Your task to perform on an android device: Search for "jbl flip 4" on ebay, select the first entry, and add it to the cart. Image 0: 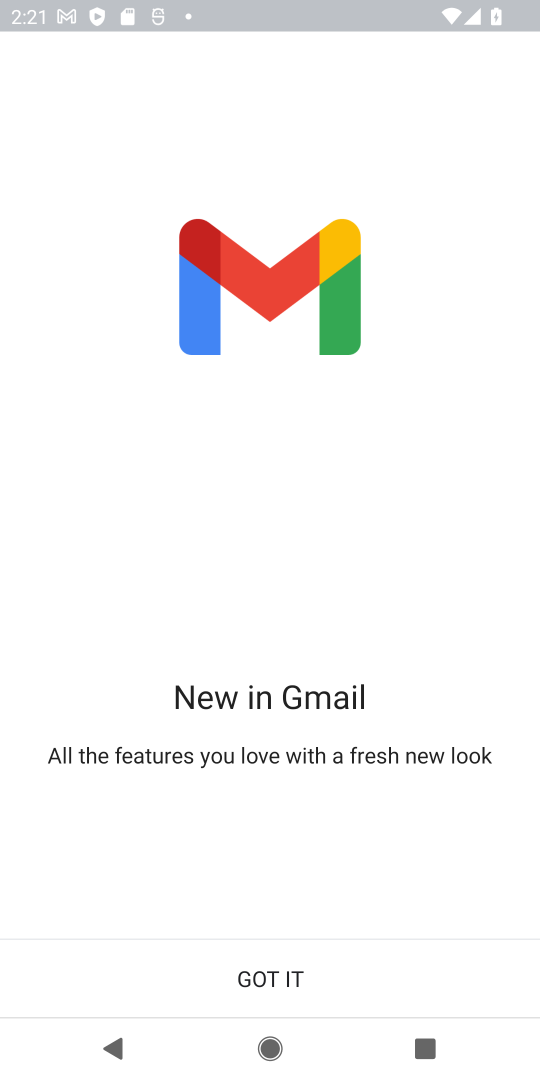
Step 0: press home button
Your task to perform on an android device: Search for "jbl flip 4" on ebay, select the first entry, and add it to the cart. Image 1: 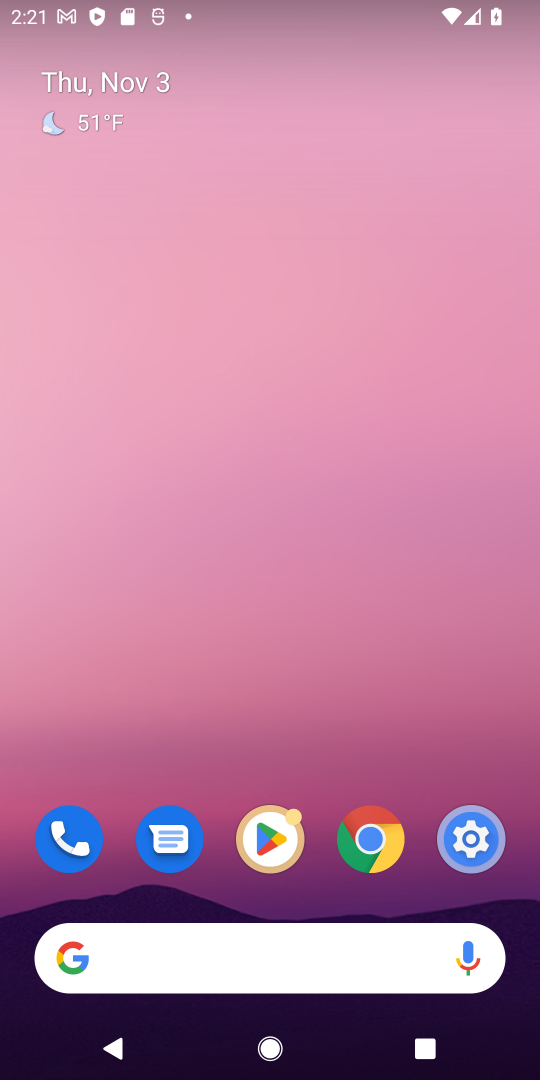
Step 1: click (242, 987)
Your task to perform on an android device: Search for "jbl flip 4" on ebay, select the first entry, and add it to the cart. Image 2: 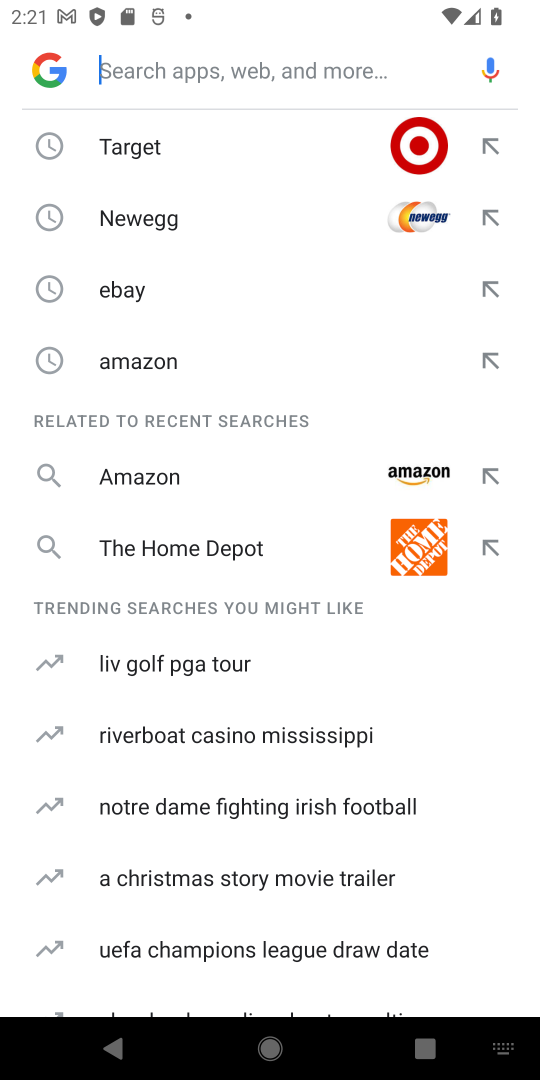
Step 2: click (158, 297)
Your task to perform on an android device: Search for "jbl flip 4" on ebay, select the first entry, and add it to the cart. Image 3: 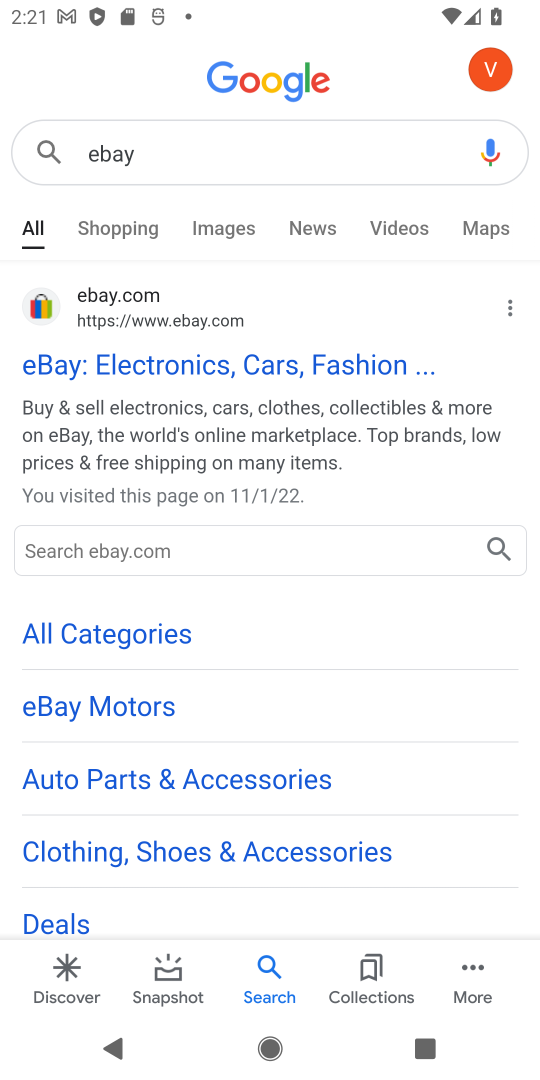
Step 3: click (288, 386)
Your task to perform on an android device: Search for "jbl flip 4" on ebay, select the first entry, and add it to the cart. Image 4: 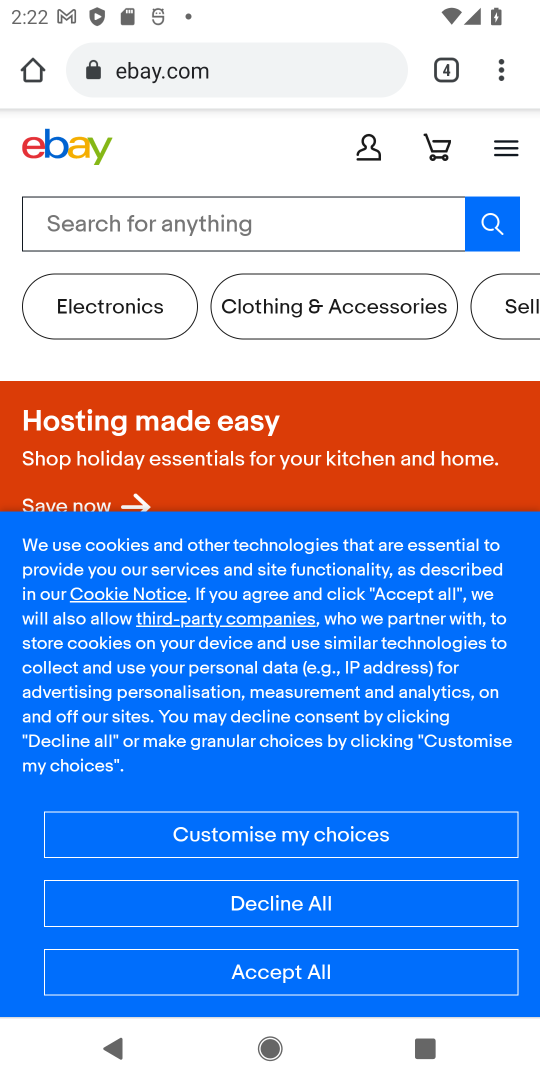
Step 4: click (313, 237)
Your task to perform on an android device: Search for "jbl flip 4" on ebay, select the first entry, and add it to the cart. Image 5: 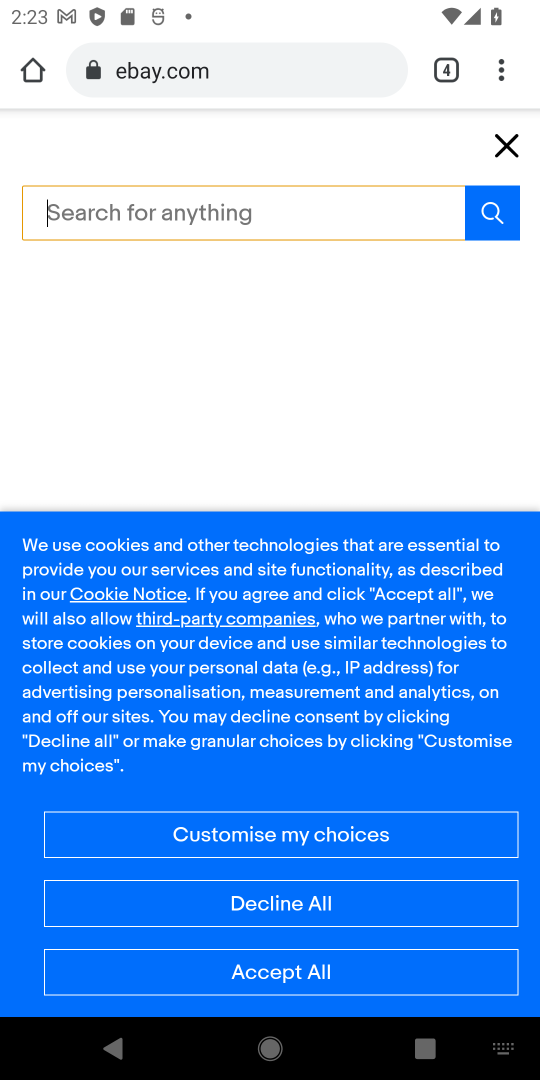
Step 5: type "jbl flip 4"
Your task to perform on an android device: Search for "jbl flip 4" on ebay, select the first entry, and add it to the cart. Image 6: 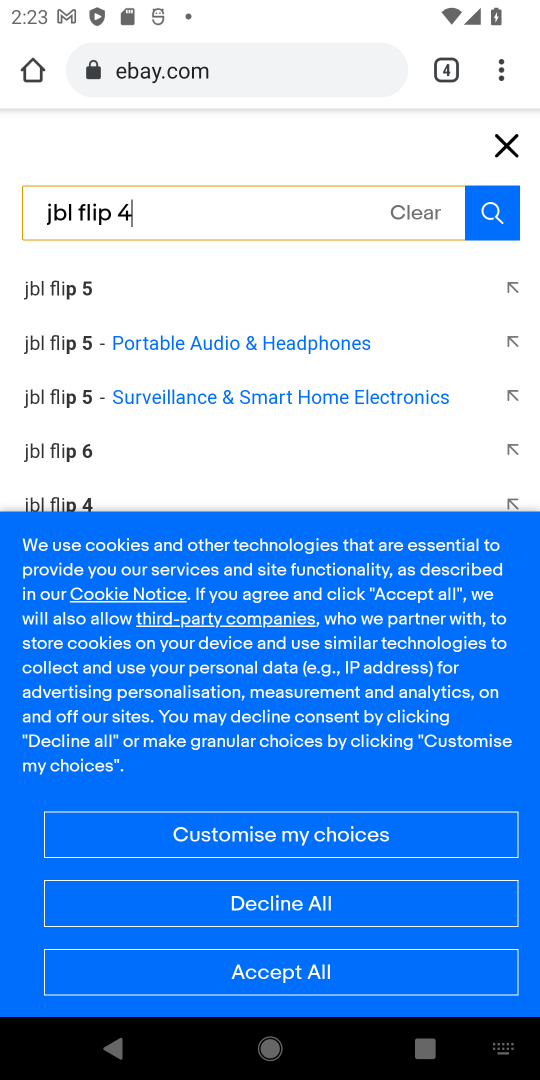
Step 6: click (489, 221)
Your task to perform on an android device: Search for "jbl flip 4" on ebay, select the first entry, and add it to the cart. Image 7: 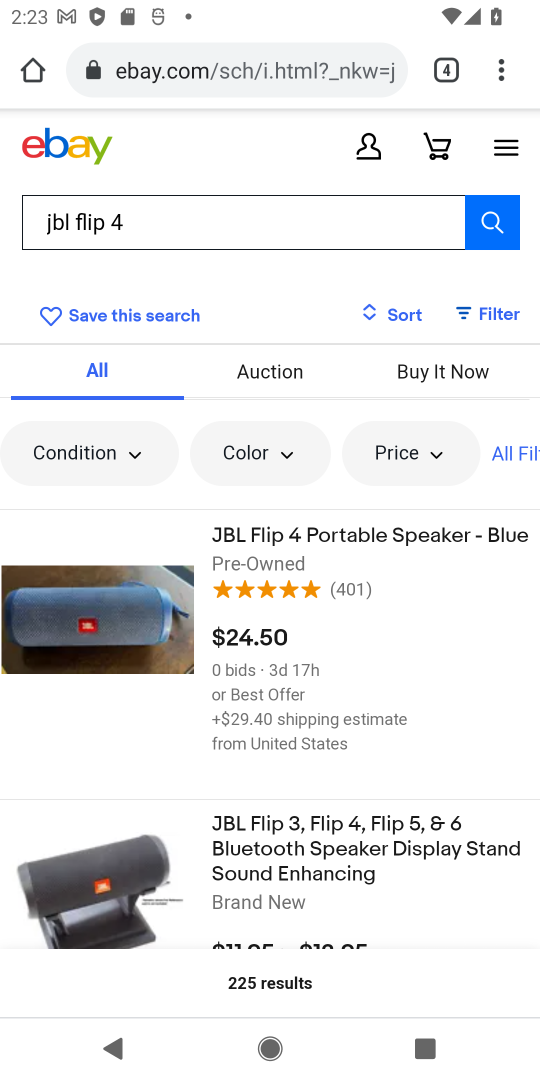
Step 7: click (276, 536)
Your task to perform on an android device: Search for "jbl flip 4" on ebay, select the first entry, and add it to the cart. Image 8: 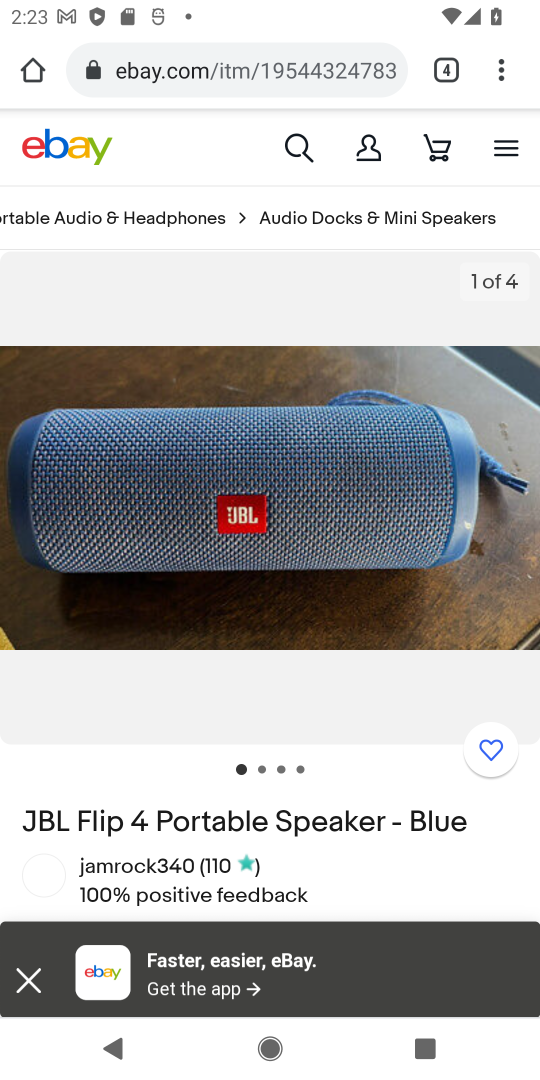
Step 8: drag from (322, 944) to (256, 335)
Your task to perform on an android device: Search for "jbl flip 4" on ebay, select the first entry, and add it to the cart. Image 9: 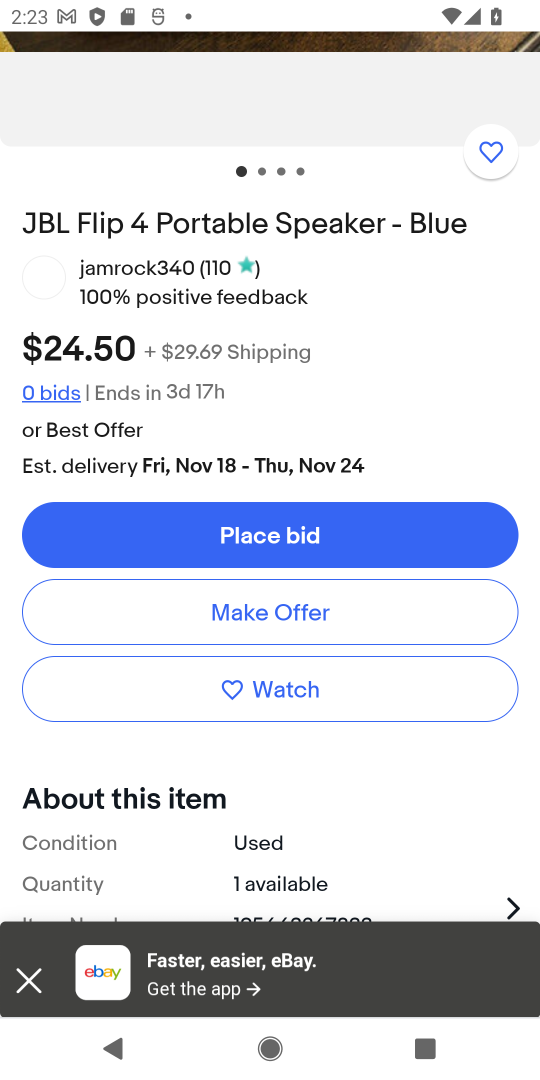
Step 9: click (289, 605)
Your task to perform on an android device: Search for "jbl flip 4" on ebay, select the first entry, and add it to the cart. Image 10: 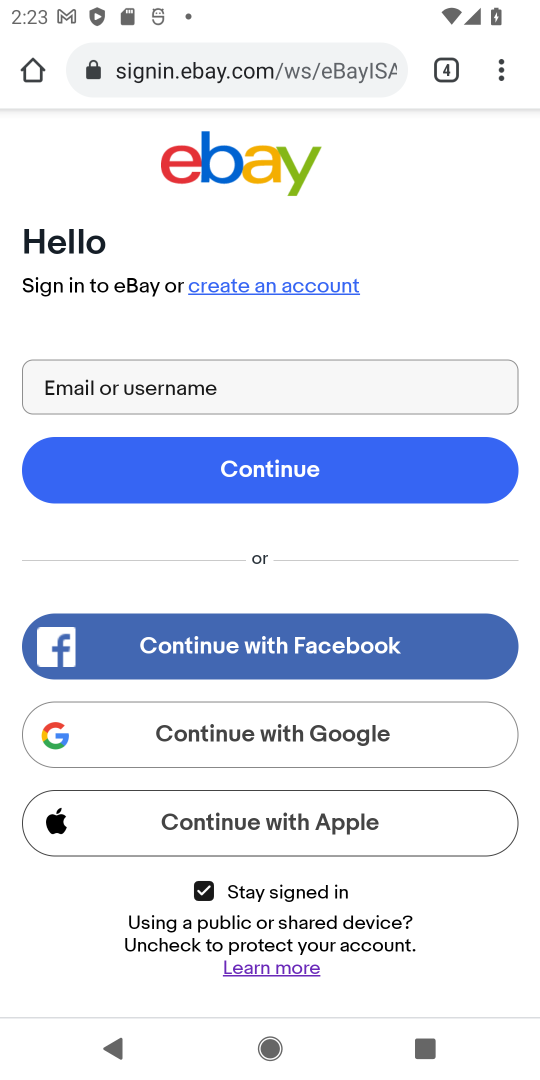
Step 10: task complete